Your task to perform on an android device: toggle show notifications on the lock screen Image 0: 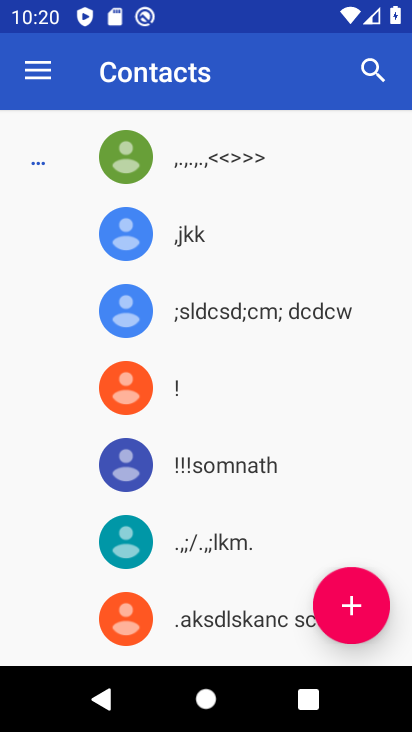
Step 0: press home button
Your task to perform on an android device: toggle show notifications on the lock screen Image 1: 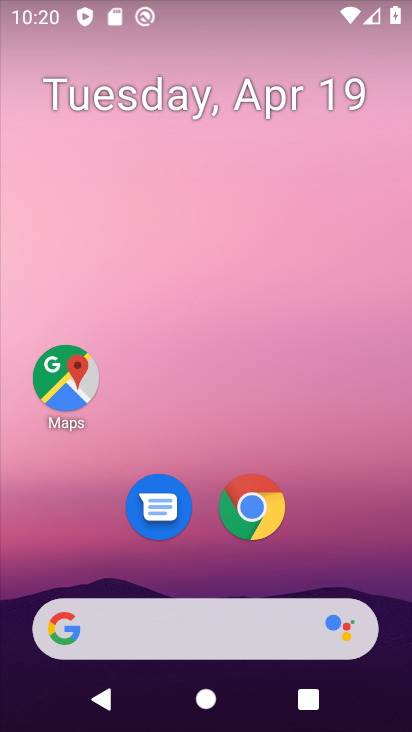
Step 1: drag from (362, 530) to (390, 197)
Your task to perform on an android device: toggle show notifications on the lock screen Image 2: 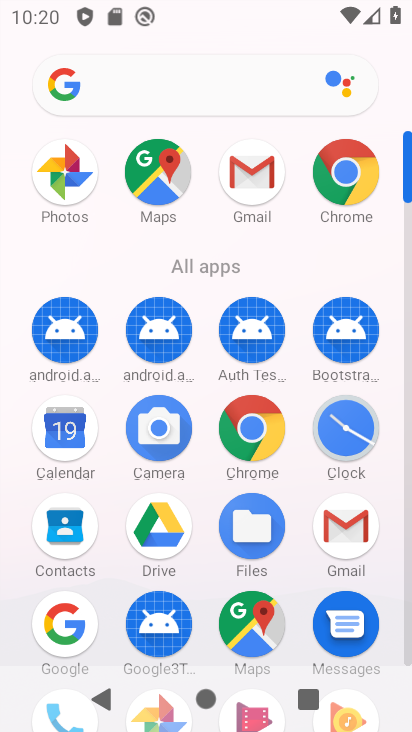
Step 2: drag from (392, 473) to (402, 254)
Your task to perform on an android device: toggle show notifications on the lock screen Image 3: 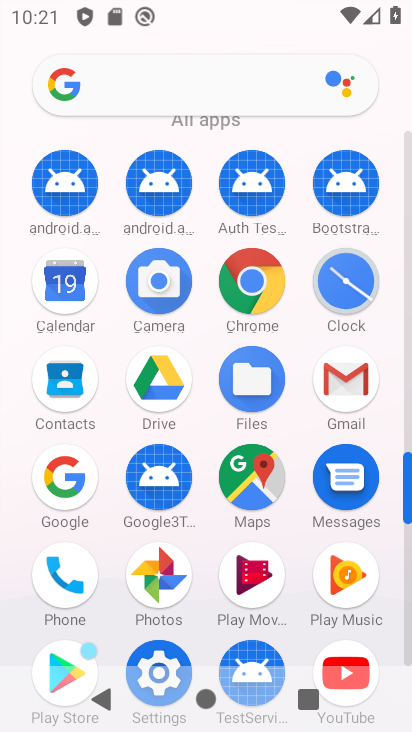
Step 3: drag from (389, 605) to (396, 288)
Your task to perform on an android device: toggle show notifications on the lock screen Image 4: 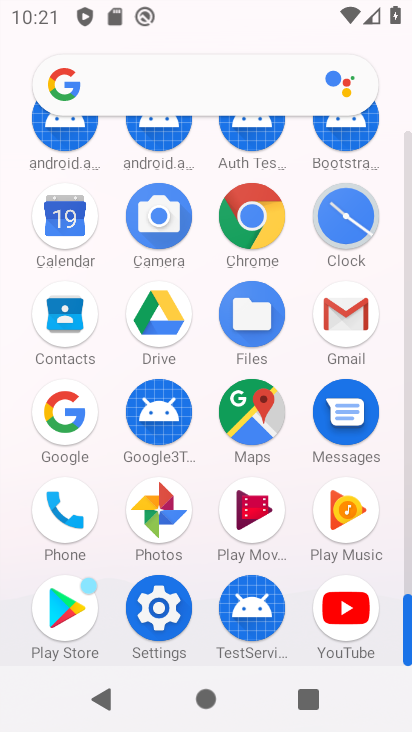
Step 4: click (170, 623)
Your task to perform on an android device: toggle show notifications on the lock screen Image 5: 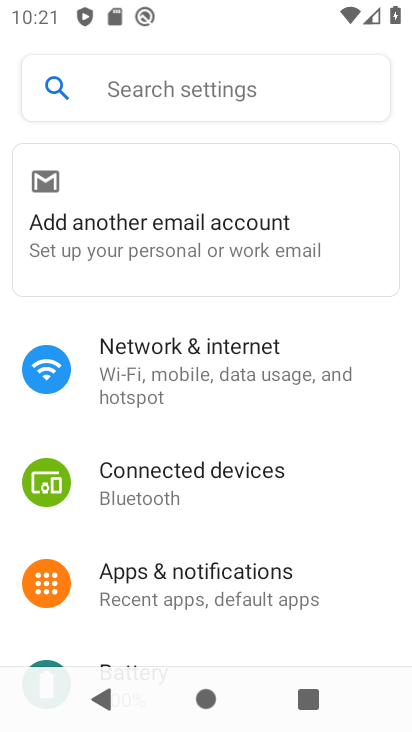
Step 5: click (210, 588)
Your task to perform on an android device: toggle show notifications on the lock screen Image 6: 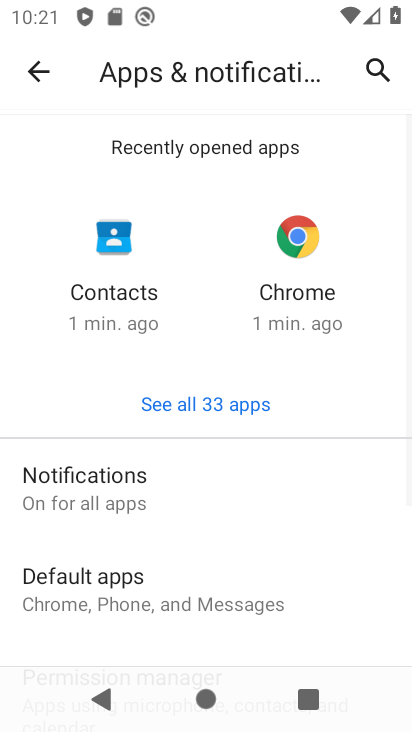
Step 6: click (117, 500)
Your task to perform on an android device: toggle show notifications on the lock screen Image 7: 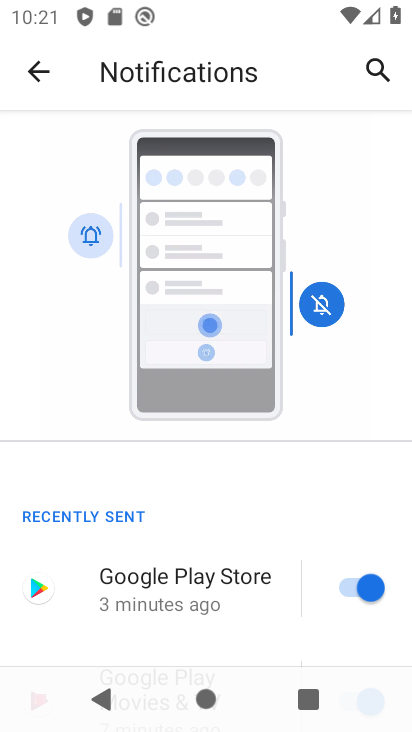
Step 7: drag from (320, 531) to (358, 252)
Your task to perform on an android device: toggle show notifications on the lock screen Image 8: 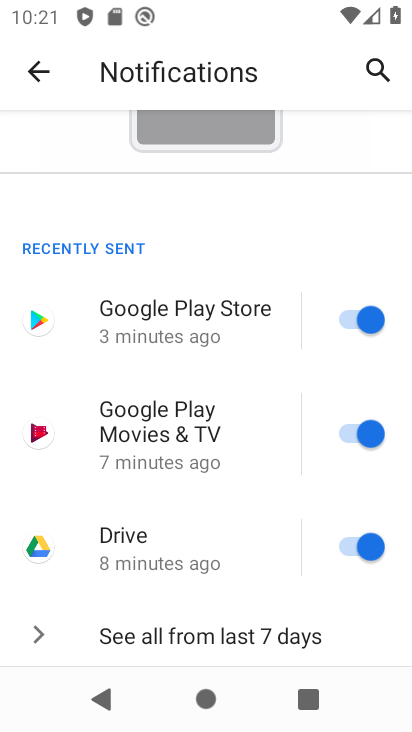
Step 8: drag from (276, 539) to (297, 252)
Your task to perform on an android device: toggle show notifications on the lock screen Image 9: 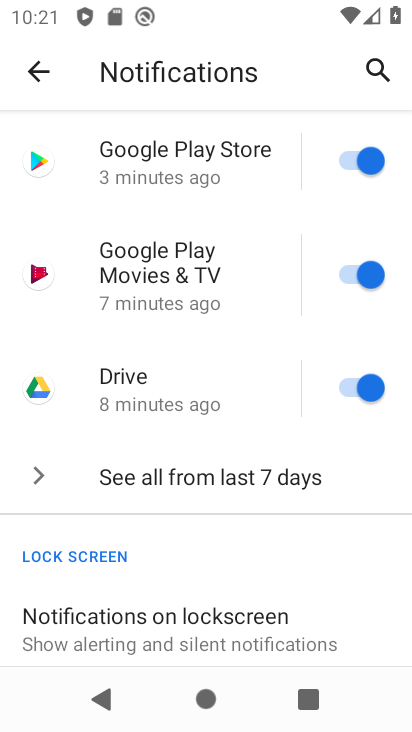
Step 9: click (215, 619)
Your task to perform on an android device: toggle show notifications on the lock screen Image 10: 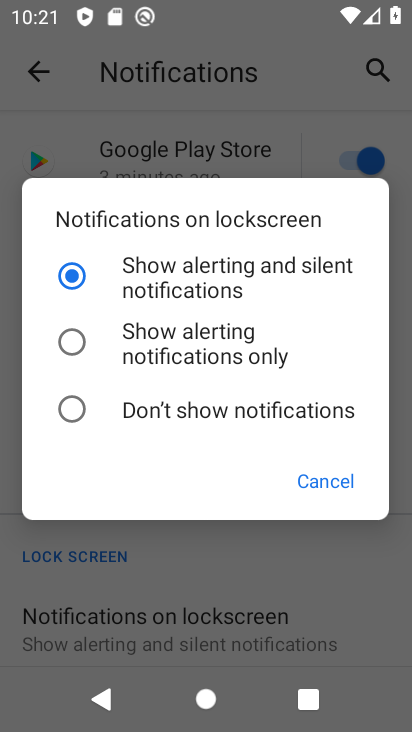
Step 10: click (72, 328)
Your task to perform on an android device: toggle show notifications on the lock screen Image 11: 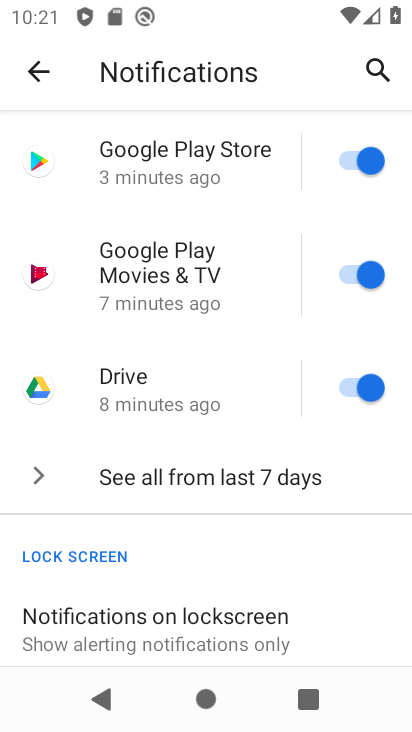
Step 11: task complete